Your task to perform on an android device: Open network settings Image 0: 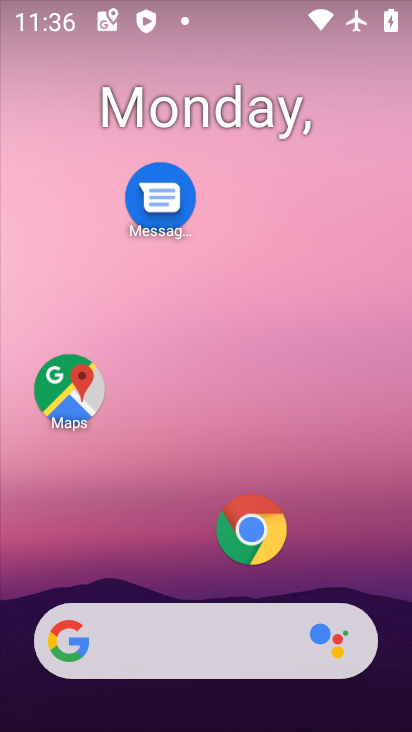
Step 0: drag from (160, 572) to (239, 199)
Your task to perform on an android device: Open network settings Image 1: 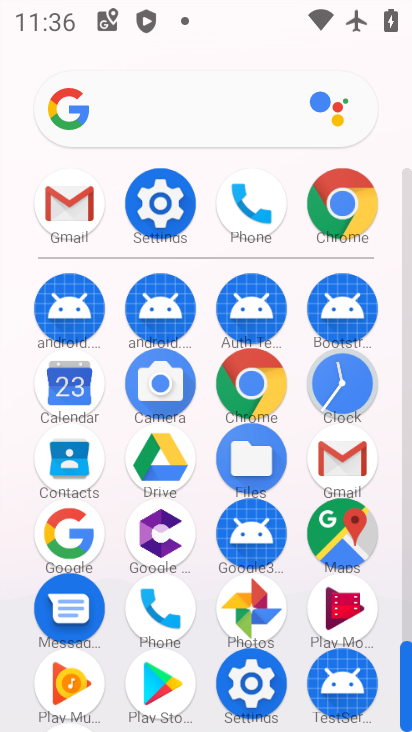
Step 1: click (143, 203)
Your task to perform on an android device: Open network settings Image 2: 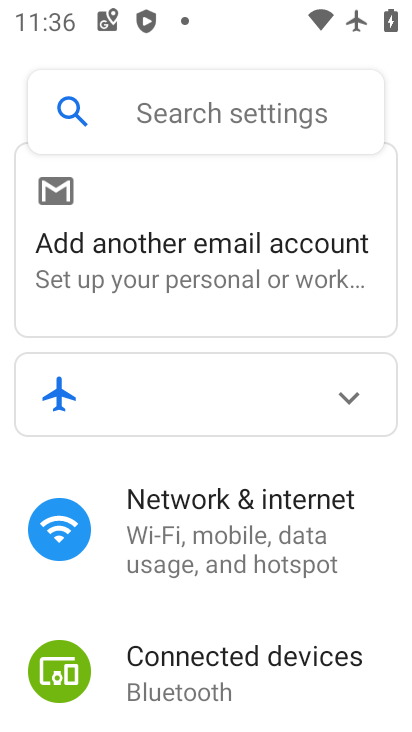
Step 2: click (155, 536)
Your task to perform on an android device: Open network settings Image 3: 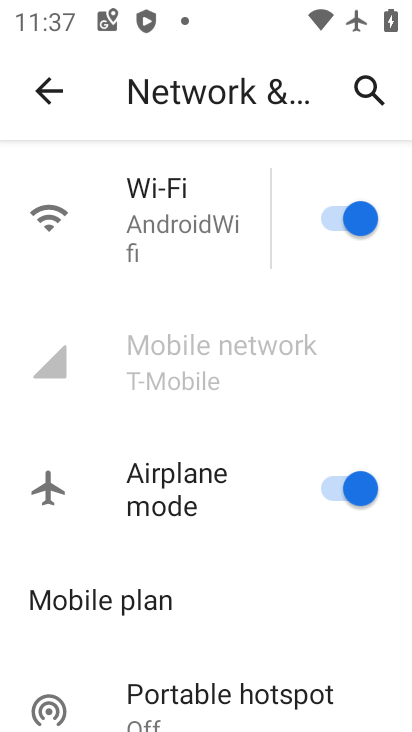
Step 3: task complete